Your task to perform on an android device: turn pop-ups off in chrome Image 0: 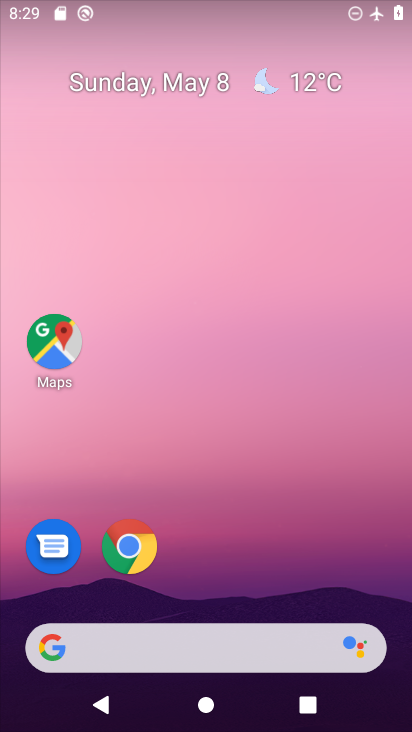
Step 0: click (138, 547)
Your task to perform on an android device: turn pop-ups off in chrome Image 1: 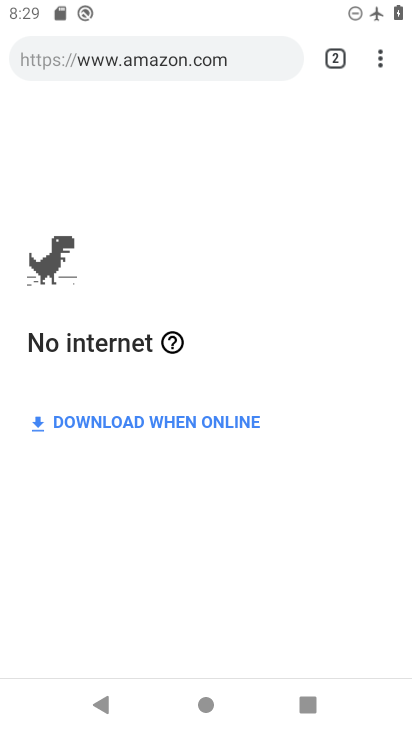
Step 1: click (376, 48)
Your task to perform on an android device: turn pop-ups off in chrome Image 2: 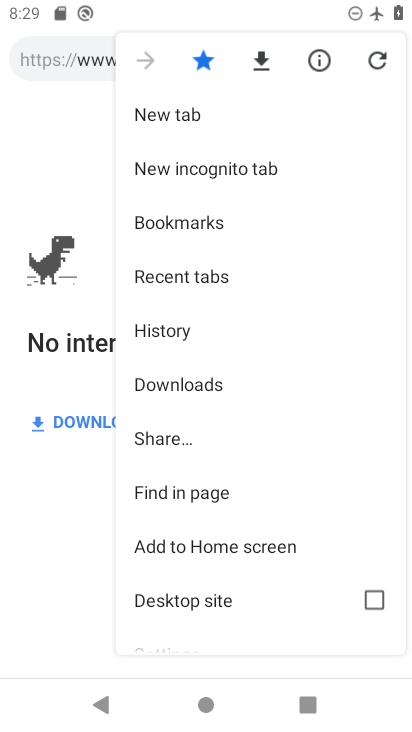
Step 2: drag from (214, 548) to (229, 299)
Your task to perform on an android device: turn pop-ups off in chrome Image 3: 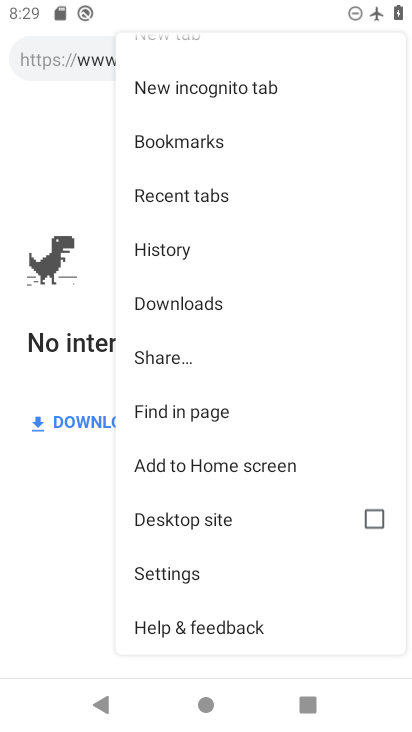
Step 3: click (199, 565)
Your task to perform on an android device: turn pop-ups off in chrome Image 4: 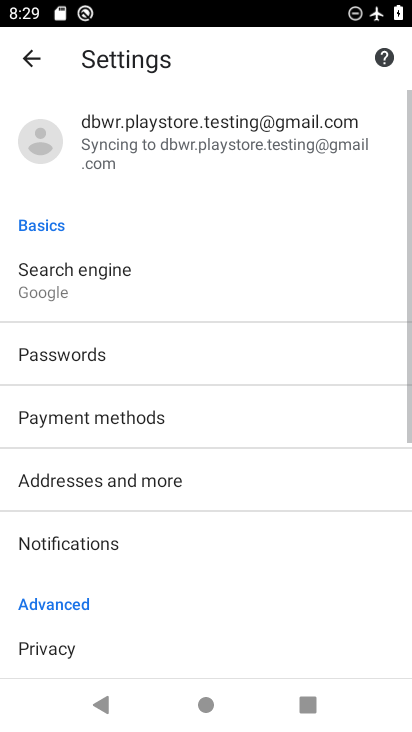
Step 4: drag from (225, 536) to (248, 270)
Your task to perform on an android device: turn pop-ups off in chrome Image 5: 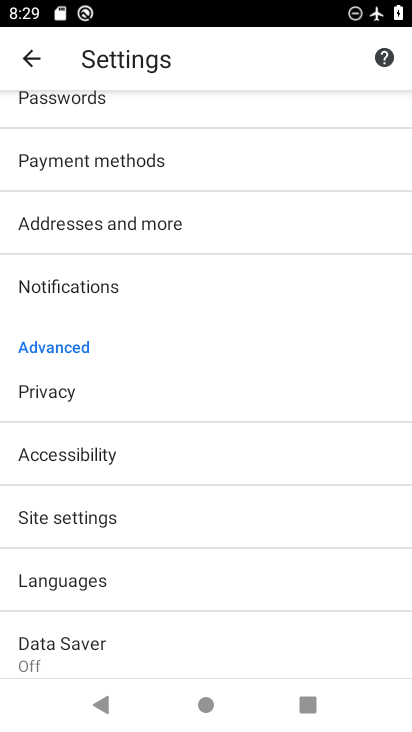
Step 5: click (192, 505)
Your task to perform on an android device: turn pop-ups off in chrome Image 6: 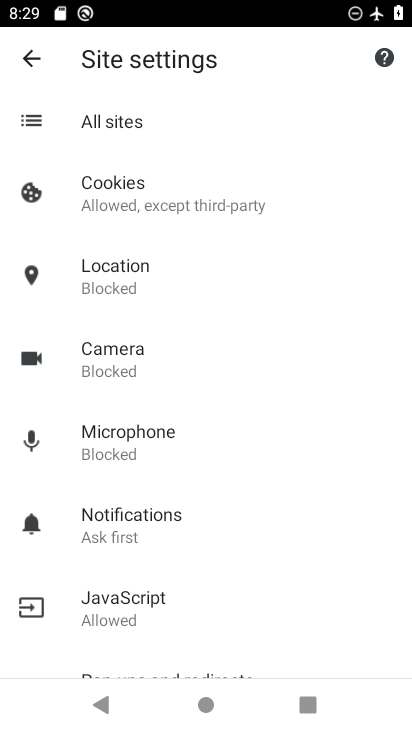
Step 6: drag from (269, 508) to (288, 280)
Your task to perform on an android device: turn pop-ups off in chrome Image 7: 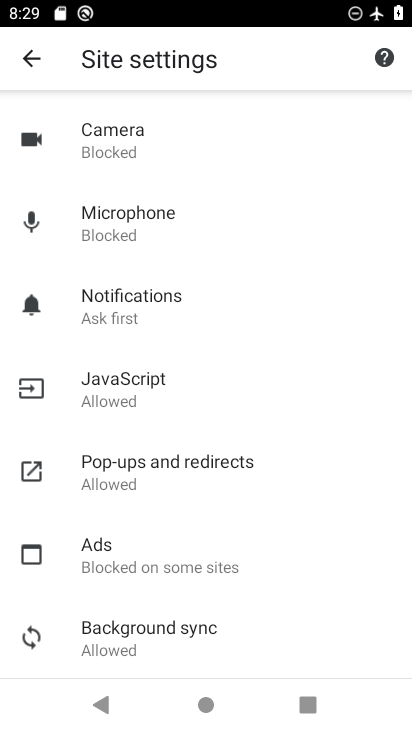
Step 7: click (194, 466)
Your task to perform on an android device: turn pop-ups off in chrome Image 8: 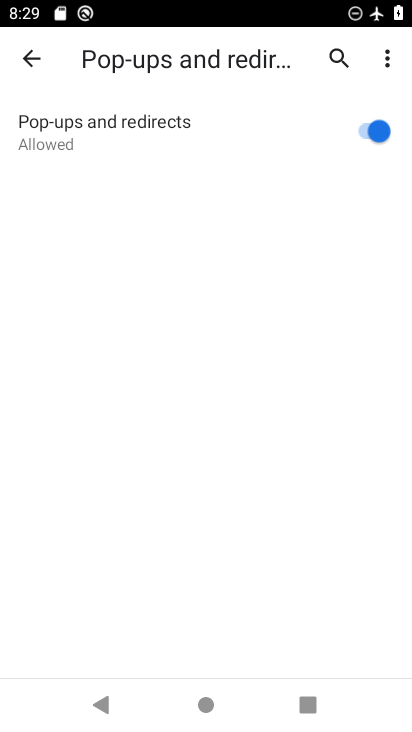
Step 8: click (354, 125)
Your task to perform on an android device: turn pop-ups off in chrome Image 9: 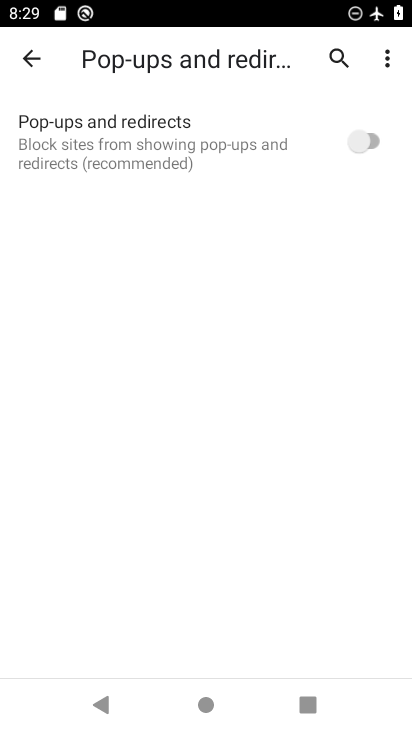
Step 9: task complete